Your task to perform on an android device: delete a single message in the gmail app Image 0: 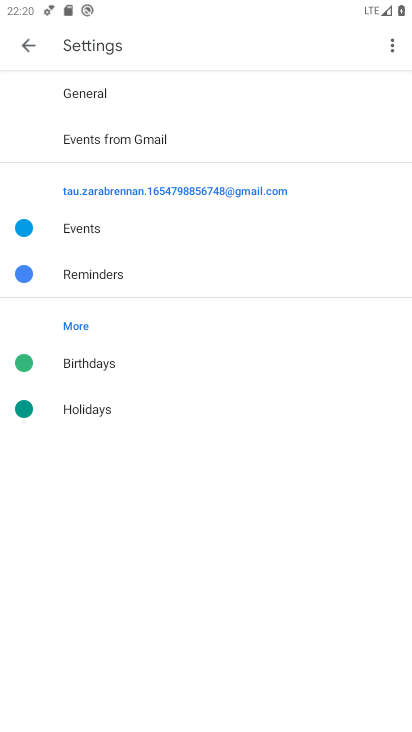
Step 0: press home button
Your task to perform on an android device: delete a single message in the gmail app Image 1: 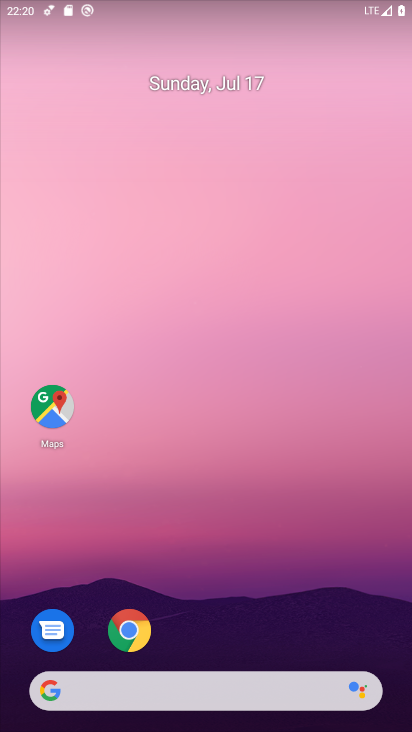
Step 1: drag from (219, 628) to (246, 49)
Your task to perform on an android device: delete a single message in the gmail app Image 2: 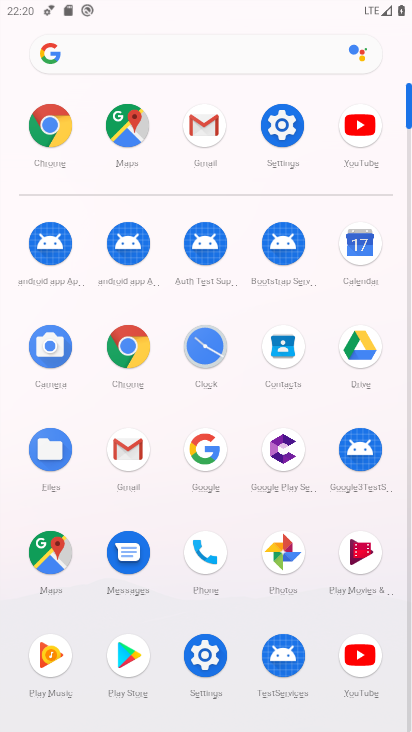
Step 2: click (128, 460)
Your task to perform on an android device: delete a single message in the gmail app Image 3: 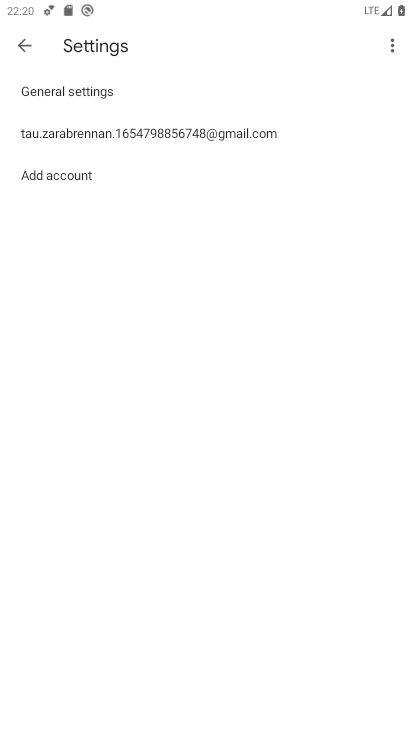
Step 3: click (26, 42)
Your task to perform on an android device: delete a single message in the gmail app Image 4: 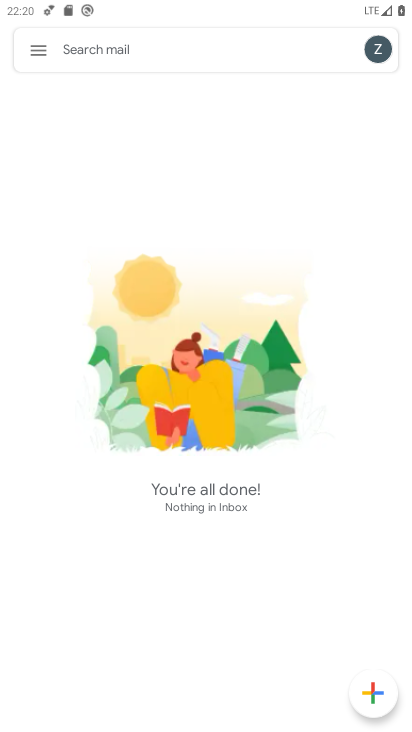
Step 4: task complete